Your task to perform on an android device: Open Google Maps Image 0: 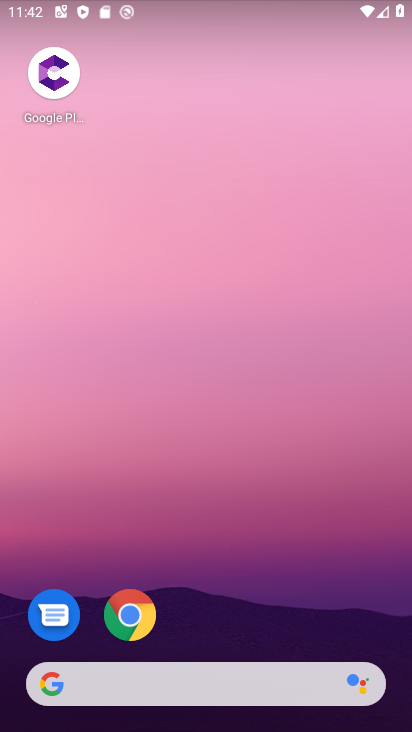
Step 0: drag from (191, 517) to (164, 267)
Your task to perform on an android device: Open Google Maps Image 1: 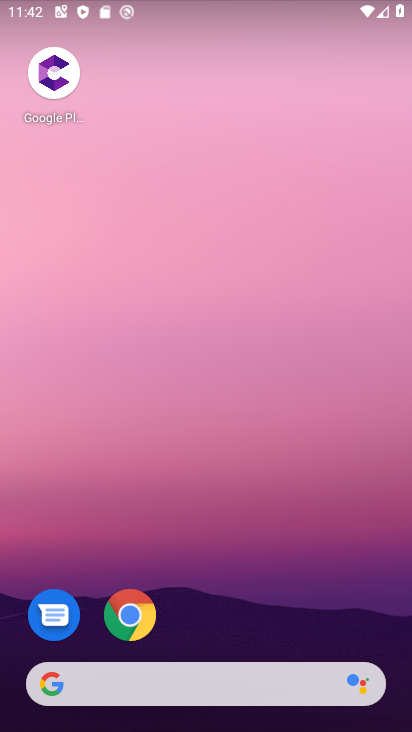
Step 1: drag from (214, 626) to (274, 205)
Your task to perform on an android device: Open Google Maps Image 2: 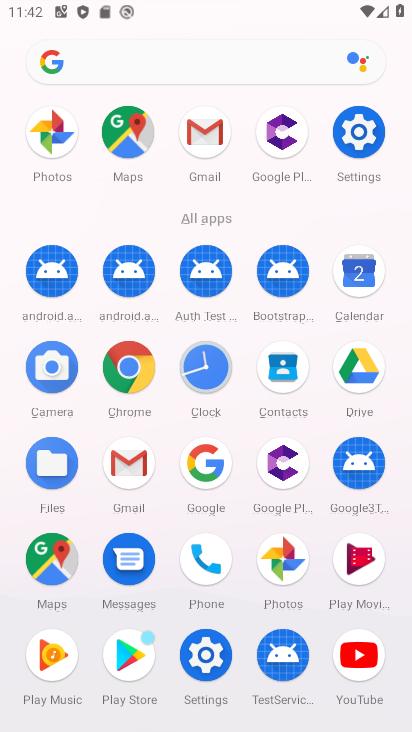
Step 2: click (48, 556)
Your task to perform on an android device: Open Google Maps Image 3: 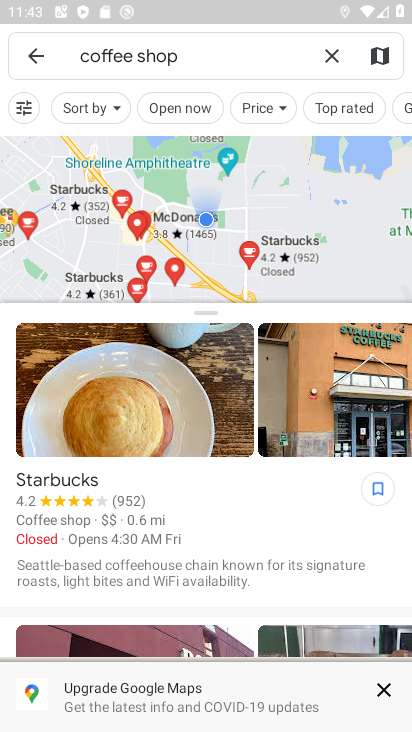
Step 3: task complete